Your task to perform on an android device: turn off javascript in the chrome app Image 0: 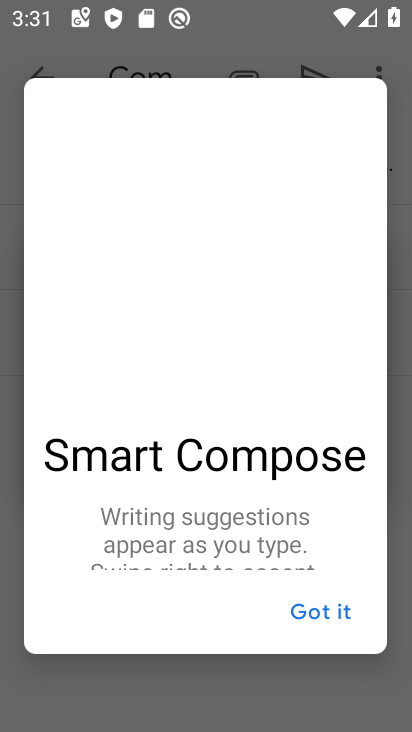
Step 0: press home button
Your task to perform on an android device: turn off javascript in the chrome app Image 1: 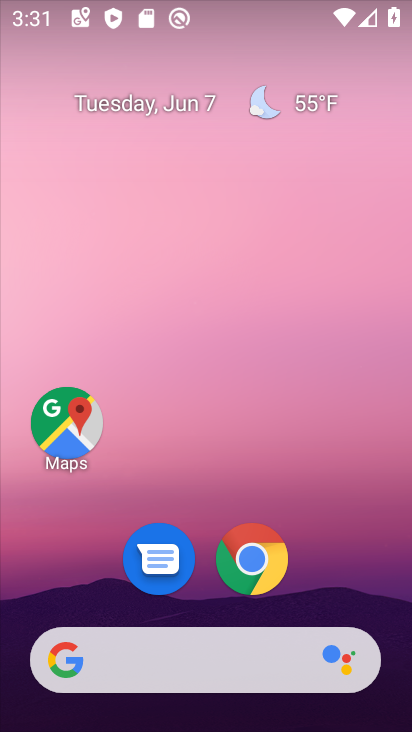
Step 1: click (249, 562)
Your task to perform on an android device: turn off javascript in the chrome app Image 2: 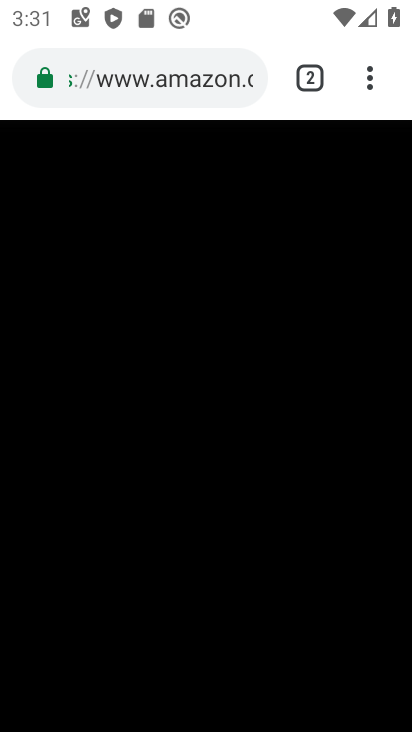
Step 2: click (371, 87)
Your task to perform on an android device: turn off javascript in the chrome app Image 3: 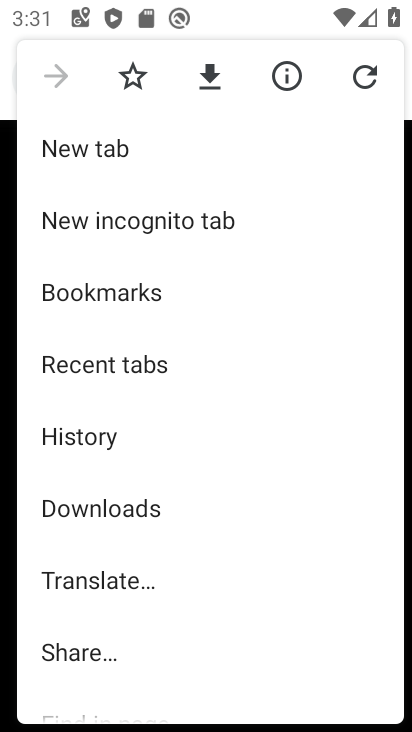
Step 3: drag from (55, 681) to (65, 336)
Your task to perform on an android device: turn off javascript in the chrome app Image 4: 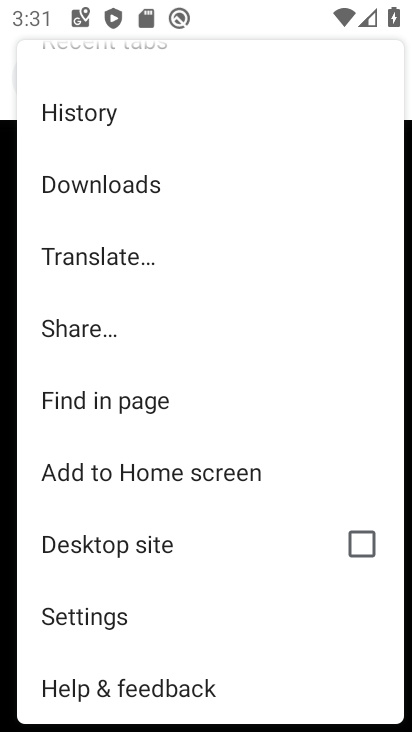
Step 4: click (89, 613)
Your task to perform on an android device: turn off javascript in the chrome app Image 5: 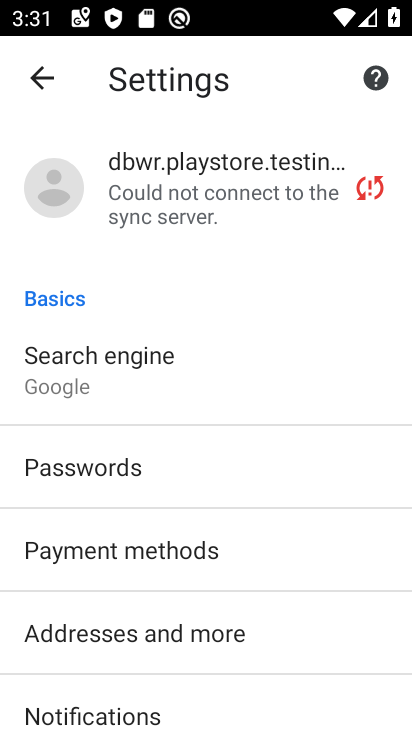
Step 5: drag from (113, 678) to (107, 363)
Your task to perform on an android device: turn off javascript in the chrome app Image 6: 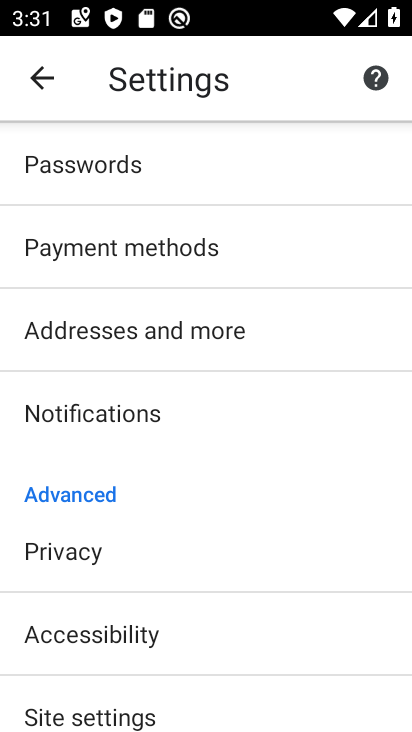
Step 6: drag from (153, 675) to (146, 389)
Your task to perform on an android device: turn off javascript in the chrome app Image 7: 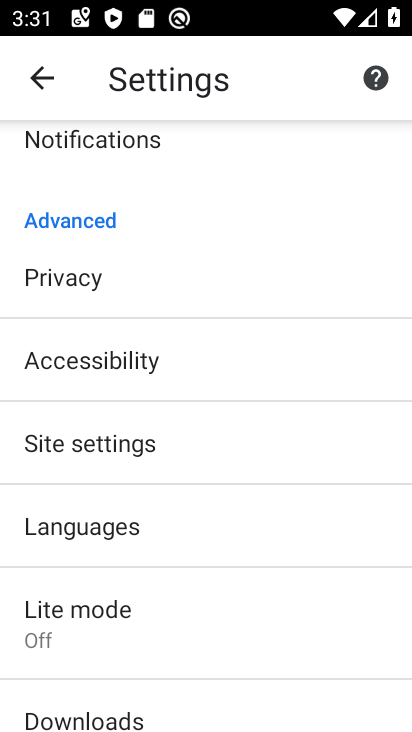
Step 7: click (97, 443)
Your task to perform on an android device: turn off javascript in the chrome app Image 8: 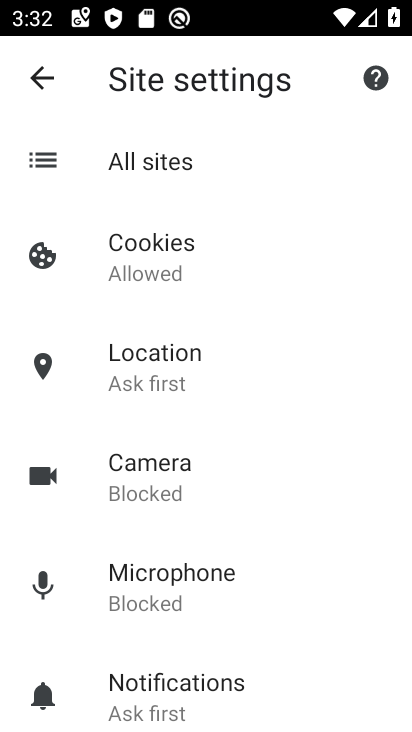
Step 8: drag from (184, 655) to (175, 399)
Your task to perform on an android device: turn off javascript in the chrome app Image 9: 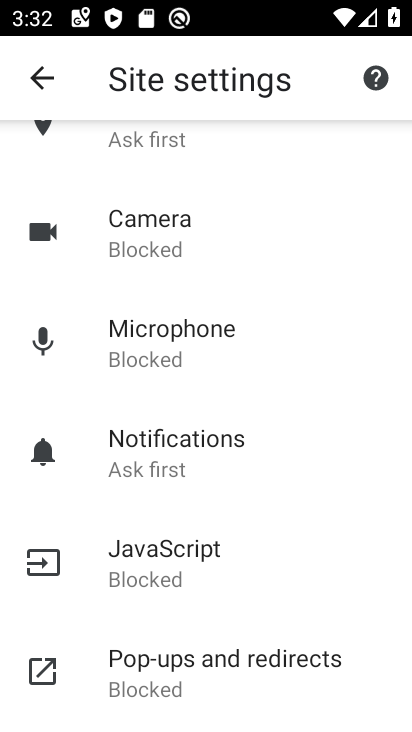
Step 9: click (163, 547)
Your task to perform on an android device: turn off javascript in the chrome app Image 10: 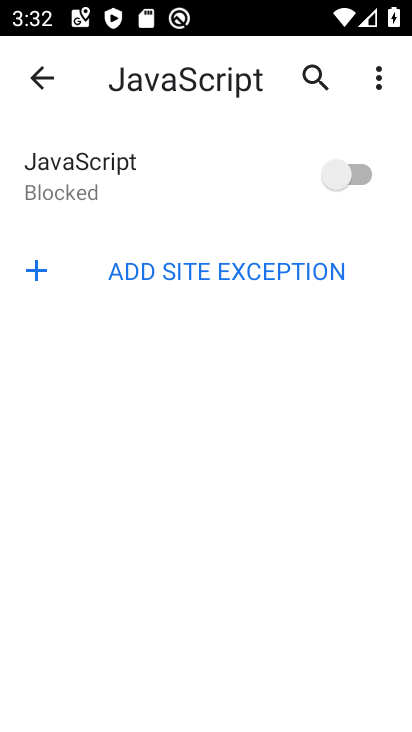
Step 10: task complete